Your task to perform on an android device: delete browsing data in the chrome app Image 0: 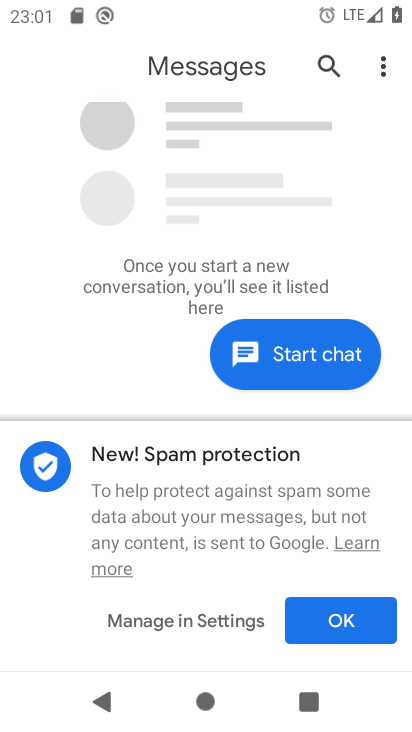
Step 0: press home button
Your task to perform on an android device: delete browsing data in the chrome app Image 1: 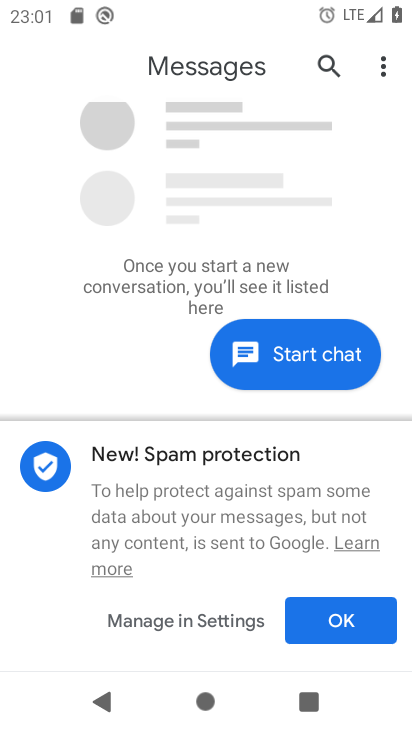
Step 1: press home button
Your task to perform on an android device: delete browsing data in the chrome app Image 2: 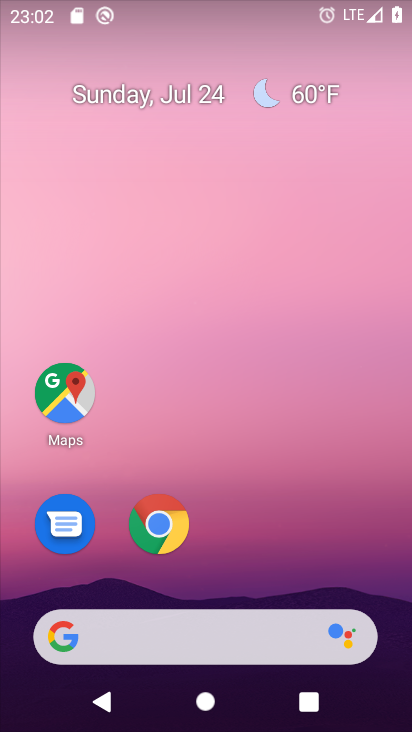
Step 2: click (160, 520)
Your task to perform on an android device: delete browsing data in the chrome app Image 3: 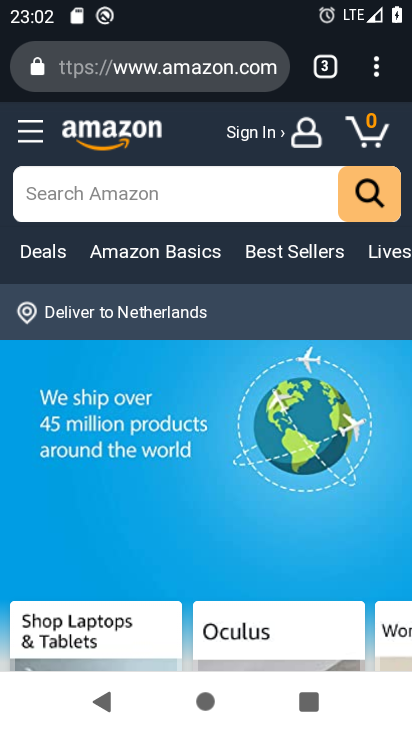
Step 3: click (380, 68)
Your task to perform on an android device: delete browsing data in the chrome app Image 4: 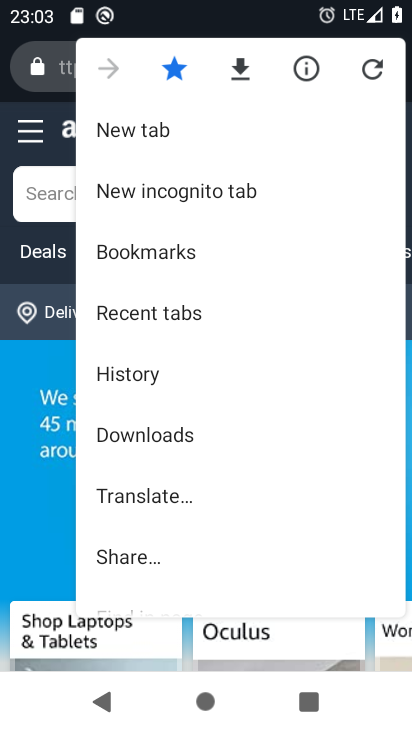
Step 4: click (135, 372)
Your task to perform on an android device: delete browsing data in the chrome app Image 5: 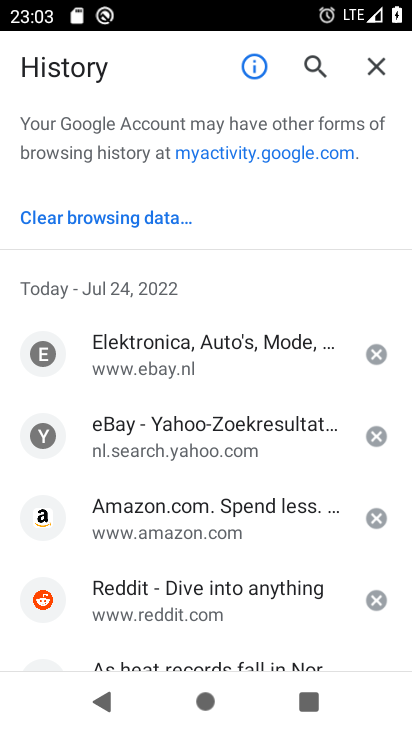
Step 5: click (122, 218)
Your task to perform on an android device: delete browsing data in the chrome app Image 6: 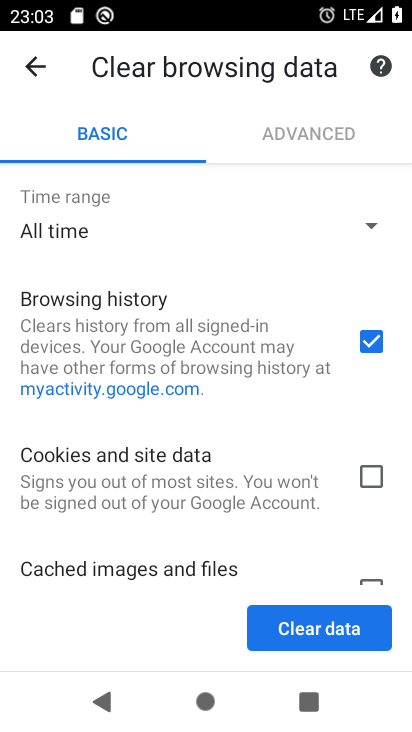
Step 6: click (368, 476)
Your task to perform on an android device: delete browsing data in the chrome app Image 7: 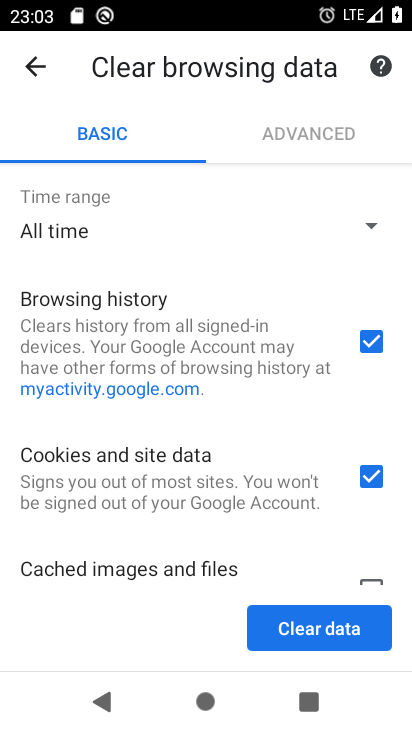
Step 7: drag from (252, 489) to (261, 298)
Your task to perform on an android device: delete browsing data in the chrome app Image 8: 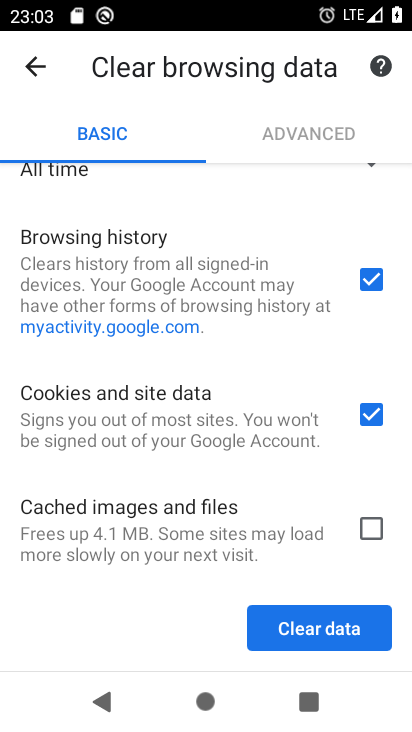
Step 8: click (365, 527)
Your task to perform on an android device: delete browsing data in the chrome app Image 9: 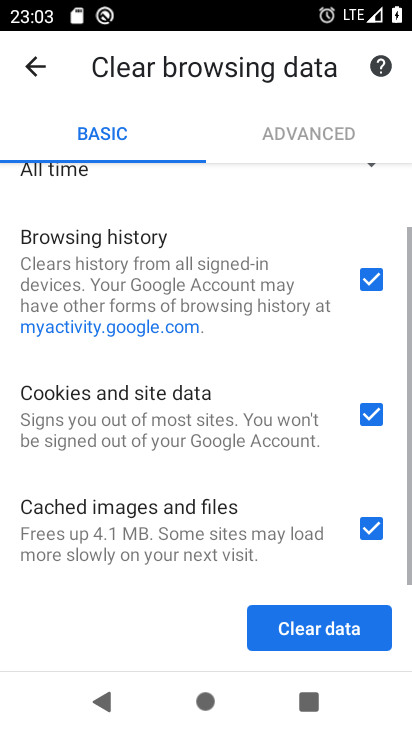
Step 9: click (356, 632)
Your task to perform on an android device: delete browsing data in the chrome app Image 10: 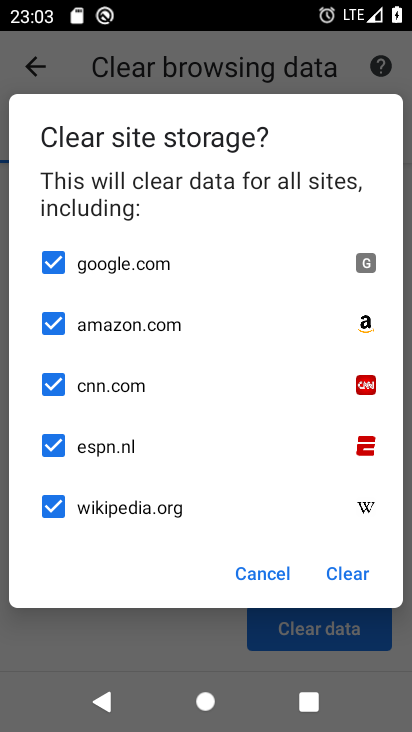
Step 10: click (348, 570)
Your task to perform on an android device: delete browsing data in the chrome app Image 11: 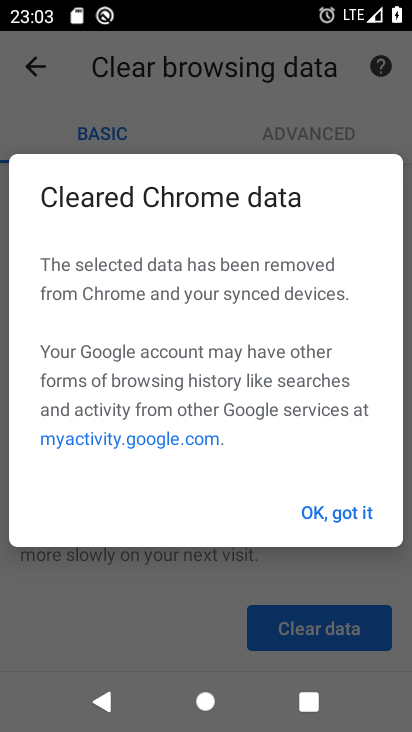
Step 11: click (347, 512)
Your task to perform on an android device: delete browsing data in the chrome app Image 12: 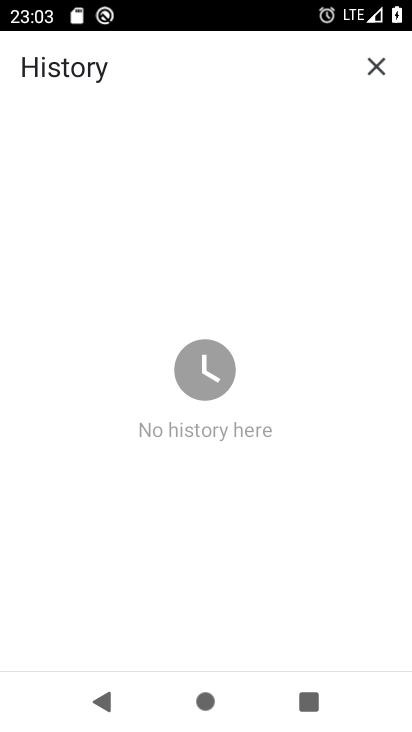
Step 12: task complete